Your task to perform on an android device: Open Youtube and go to the subscriptions tab Image 0: 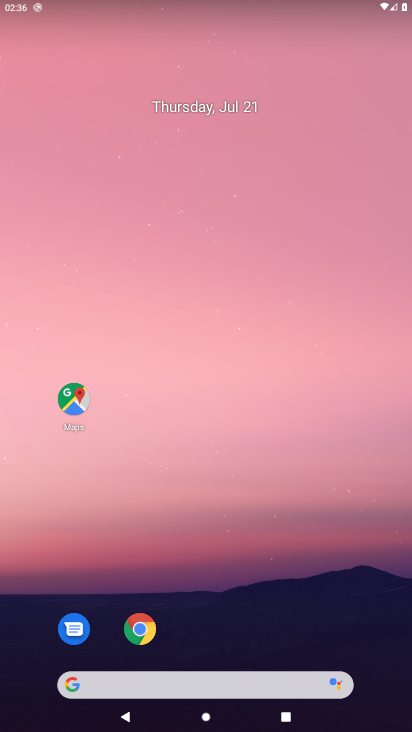
Step 0: drag from (24, 696) to (356, 11)
Your task to perform on an android device: Open Youtube and go to the subscriptions tab Image 1: 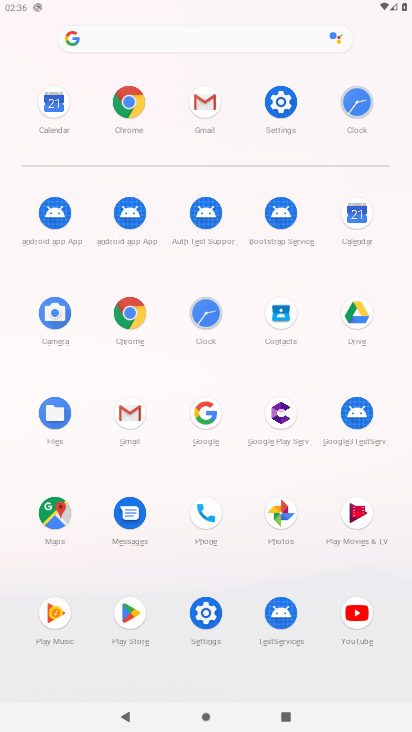
Step 1: click (365, 613)
Your task to perform on an android device: Open Youtube and go to the subscriptions tab Image 2: 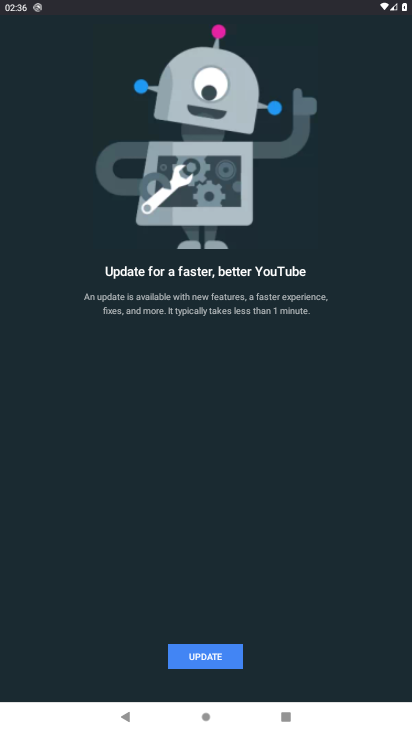
Step 2: click (185, 658)
Your task to perform on an android device: Open Youtube and go to the subscriptions tab Image 3: 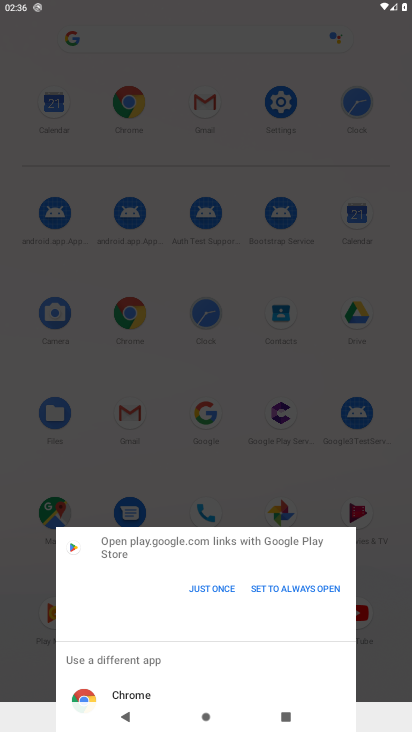
Step 3: click (206, 593)
Your task to perform on an android device: Open Youtube and go to the subscriptions tab Image 4: 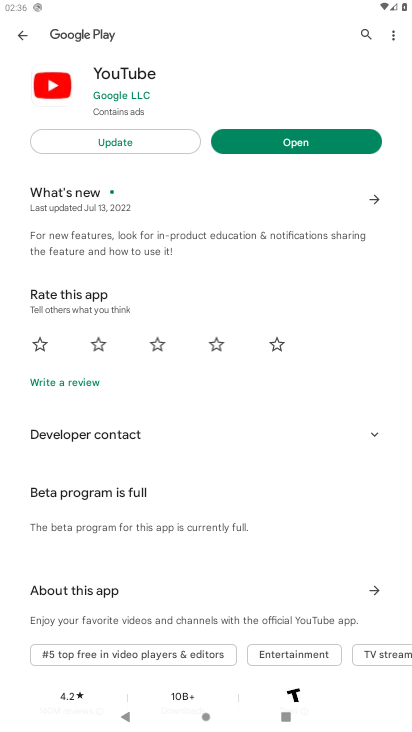
Step 4: click (283, 151)
Your task to perform on an android device: Open Youtube and go to the subscriptions tab Image 5: 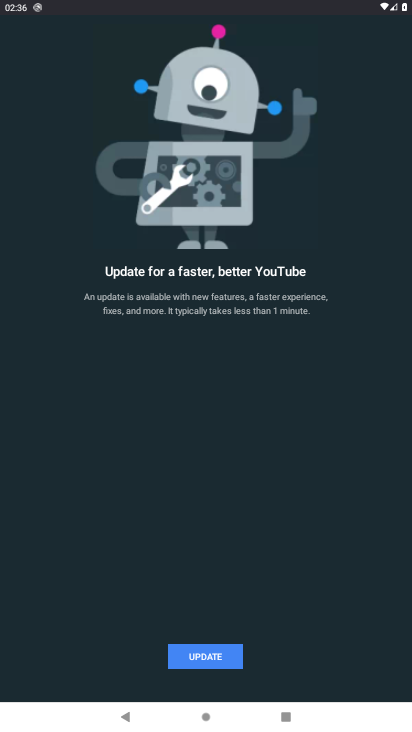
Step 5: task complete